Your task to perform on an android device: turn on data saver in the chrome app Image 0: 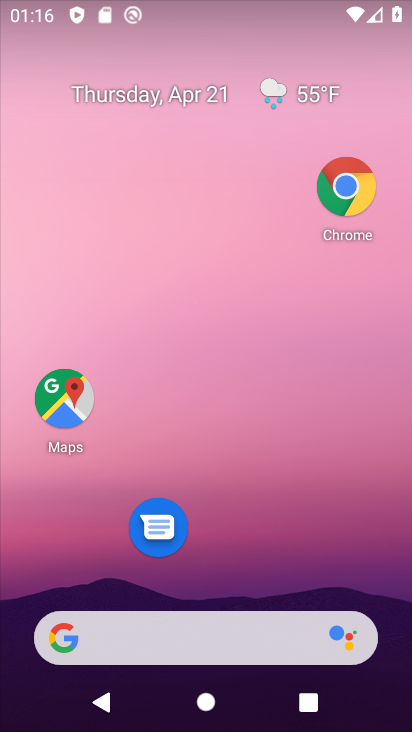
Step 0: drag from (196, 571) to (220, 99)
Your task to perform on an android device: turn on data saver in the chrome app Image 1: 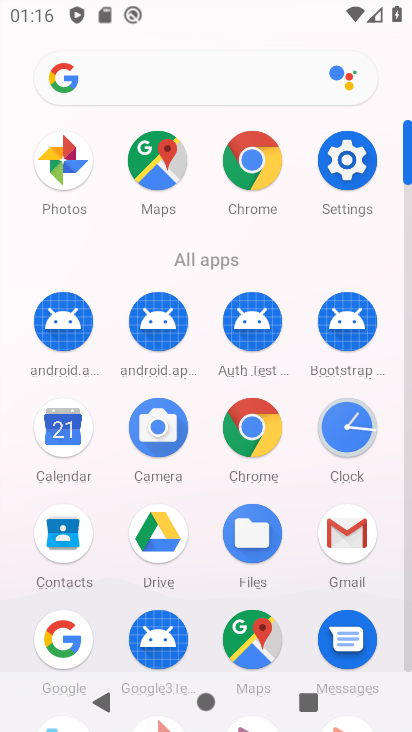
Step 1: click (243, 421)
Your task to perform on an android device: turn on data saver in the chrome app Image 2: 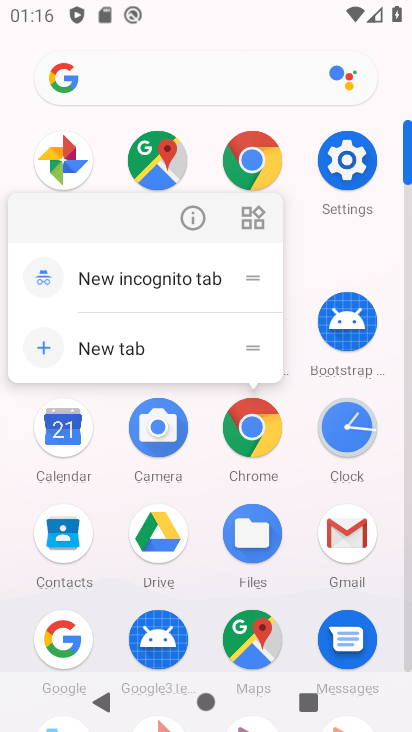
Step 2: click (186, 232)
Your task to perform on an android device: turn on data saver in the chrome app Image 3: 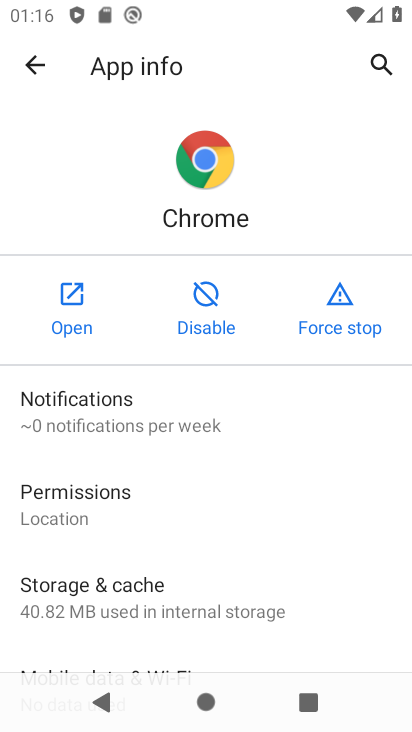
Step 3: click (70, 299)
Your task to perform on an android device: turn on data saver in the chrome app Image 4: 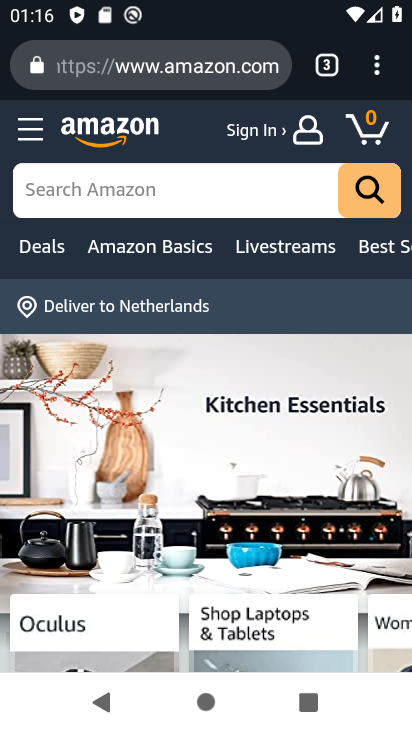
Step 4: drag from (386, 73) to (170, 577)
Your task to perform on an android device: turn on data saver in the chrome app Image 5: 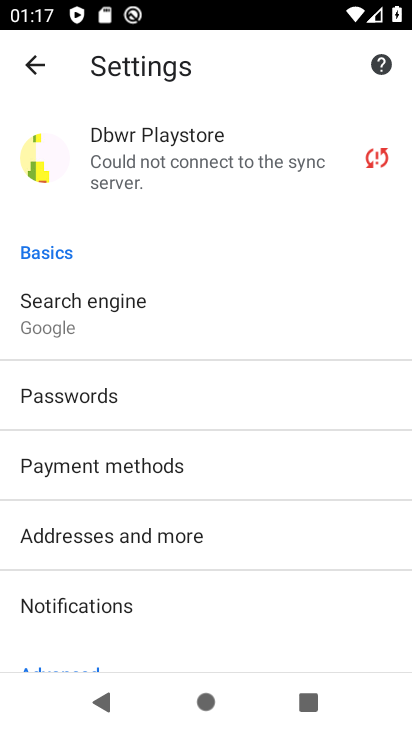
Step 5: drag from (228, 579) to (313, 41)
Your task to perform on an android device: turn on data saver in the chrome app Image 6: 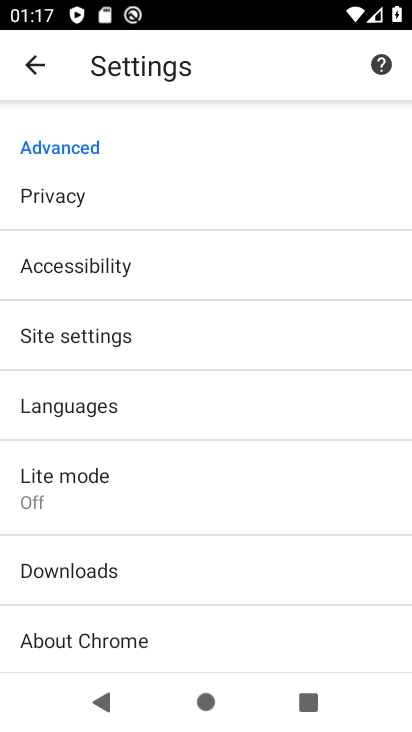
Step 6: drag from (213, 552) to (176, 183)
Your task to perform on an android device: turn on data saver in the chrome app Image 7: 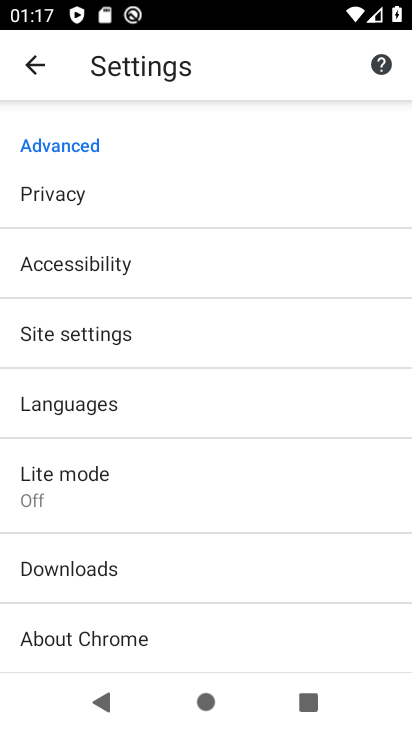
Step 7: click (111, 500)
Your task to perform on an android device: turn on data saver in the chrome app Image 8: 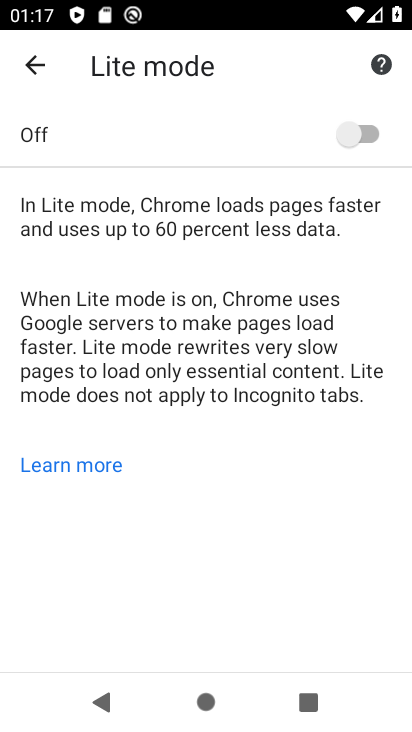
Step 8: click (268, 138)
Your task to perform on an android device: turn on data saver in the chrome app Image 9: 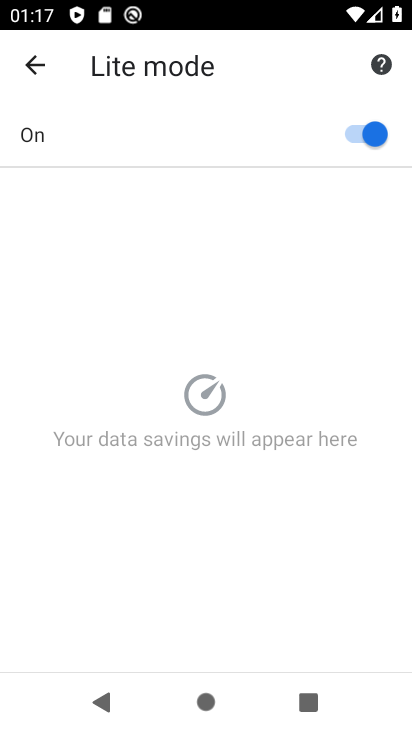
Step 9: task complete